Your task to perform on an android device: Go to sound settings Image 0: 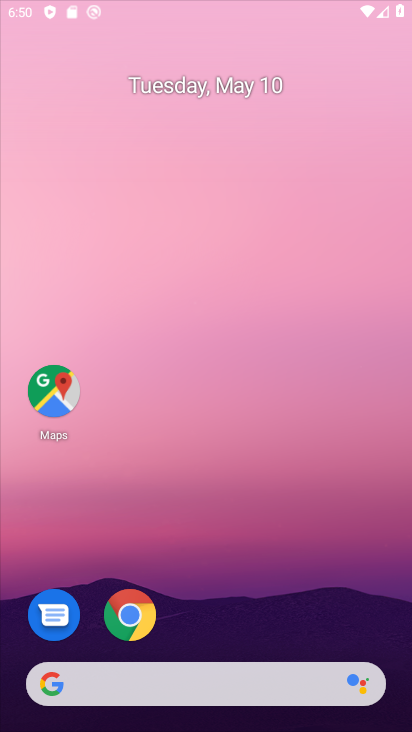
Step 0: drag from (232, 547) to (122, 60)
Your task to perform on an android device: Go to sound settings Image 1: 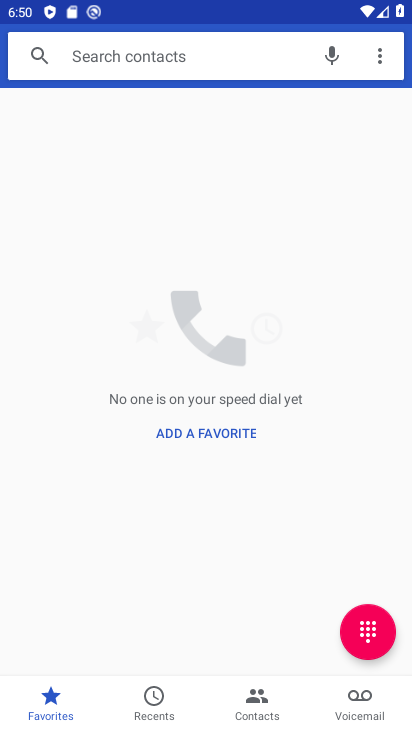
Step 1: press home button
Your task to perform on an android device: Go to sound settings Image 2: 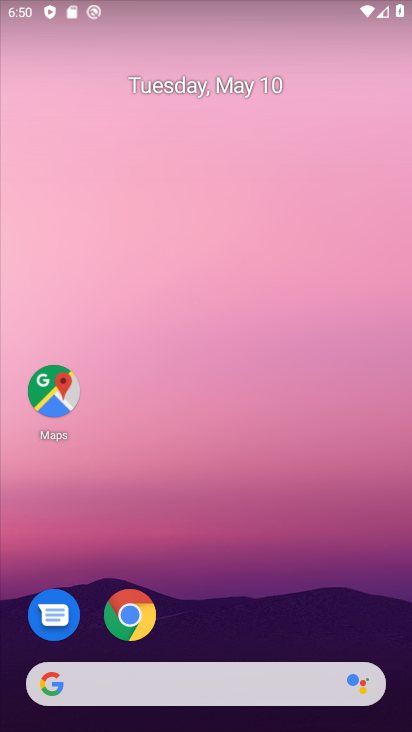
Step 2: drag from (251, 586) to (139, 106)
Your task to perform on an android device: Go to sound settings Image 3: 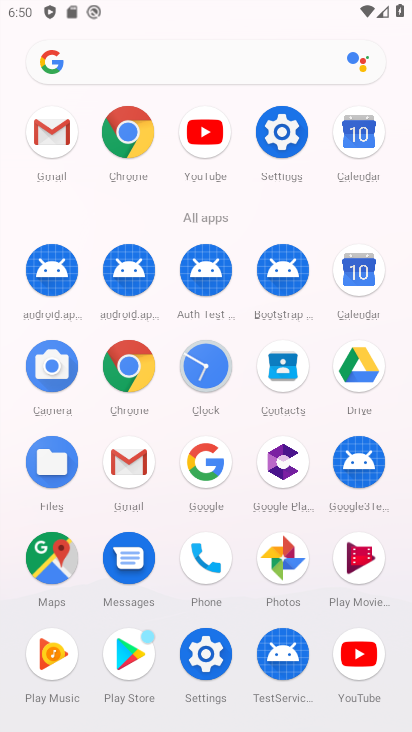
Step 3: click (283, 131)
Your task to perform on an android device: Go to sound settings Image 4: 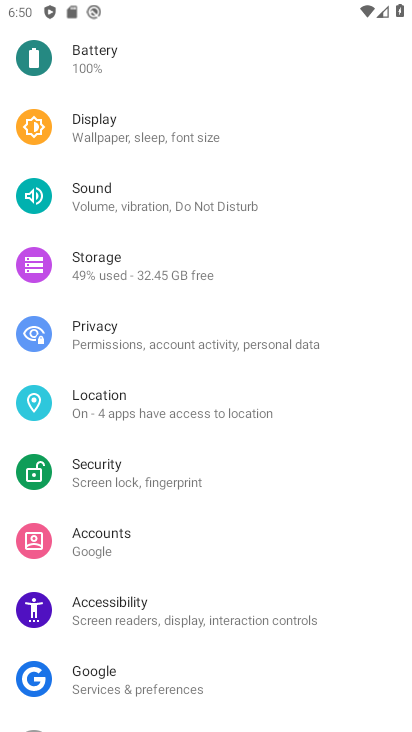
Step 4: click (88, 188)
Your task to perform on an android device: Go to sound settings Image 5: 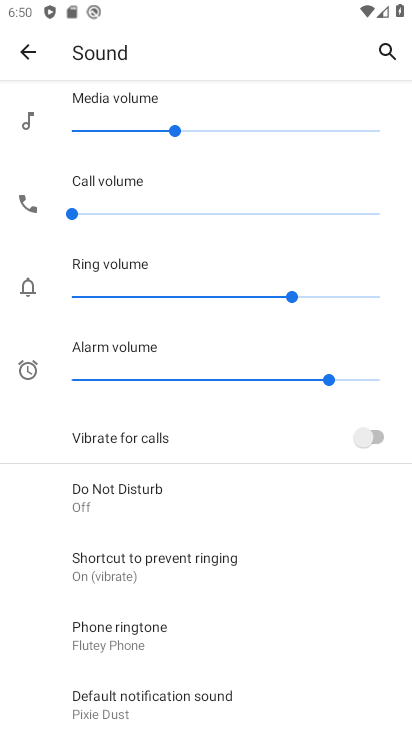
Step 5: task complete